Your task to perform on an android device: add a label to a message in the gmail app Image 0: 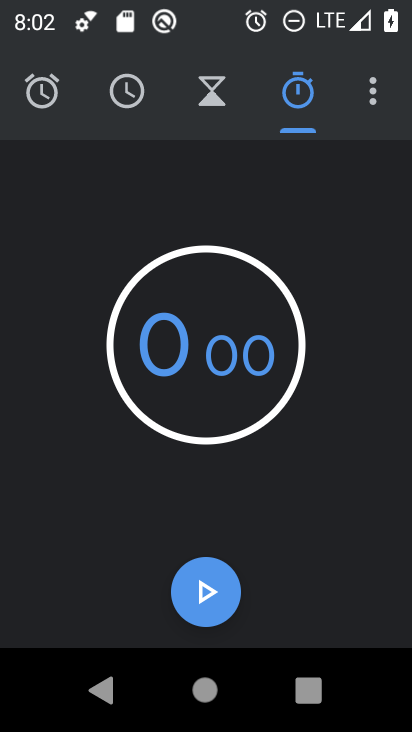
Step 0: press home button
Your task to perform on an android device: add a label to a message in the gmail app Image 1: 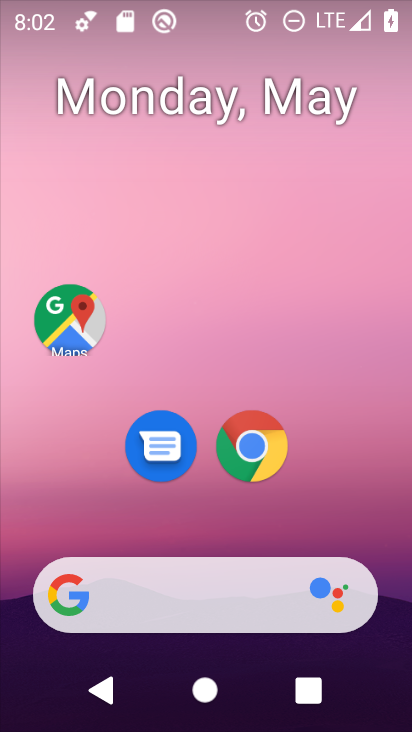
Step 1: drag from (349, 496) to (206, 87)
Your task to perform on an android device: add a label to a message in the gmail app Image 2: 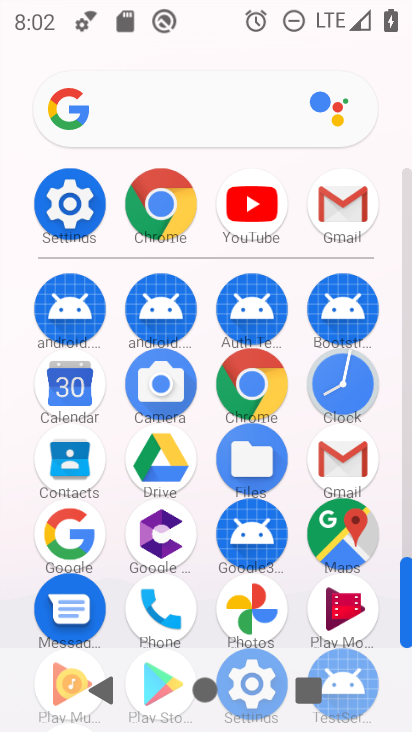
Step 2: click (350, 192)
Your task to perform on an android device: add a label to a message in the gmail app Image 3: 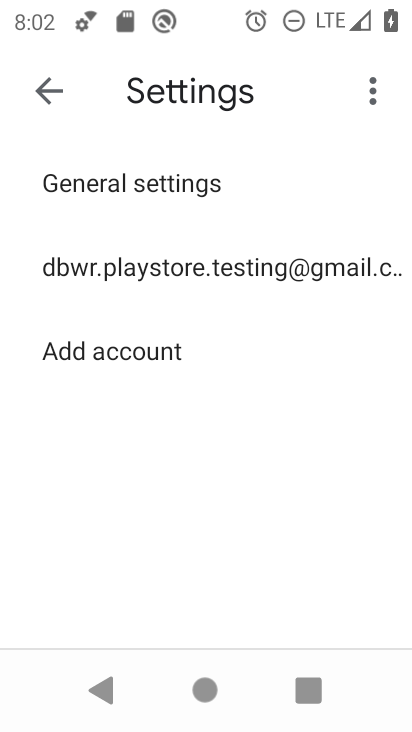
Step 3: click (47, 87)
Your task to perform on an android device: add a label to a message in the gmail app Image 4: 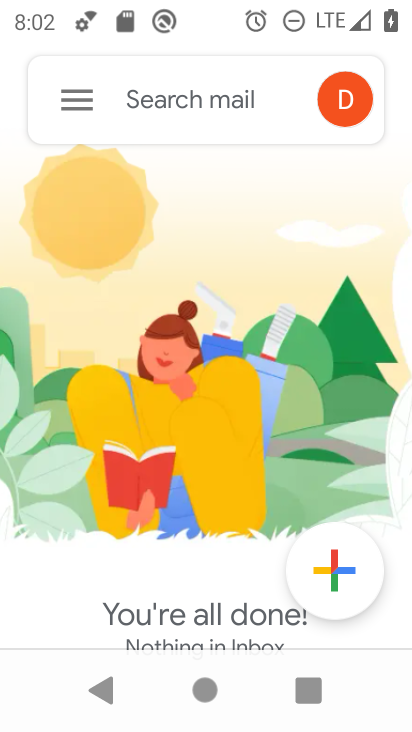
Step 4: click (78, 96)
Your task to perform on an android device: add a label to a message in the gmail app Image 5: 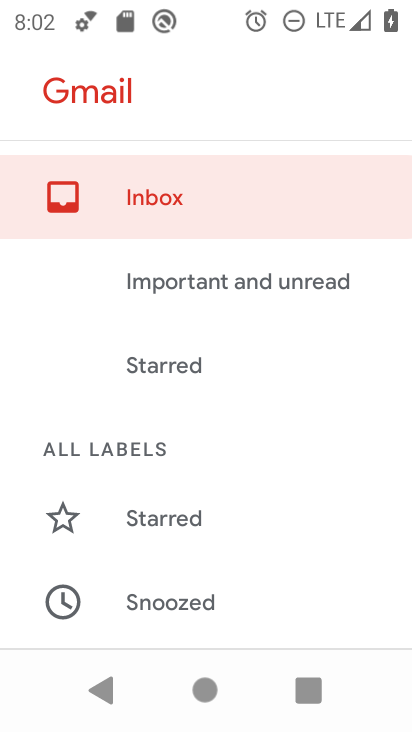
Step 5: drag from (211, 464) to (181, 235)
Your task to perform on an android device: add a label to a message in the gmail app Image 6: 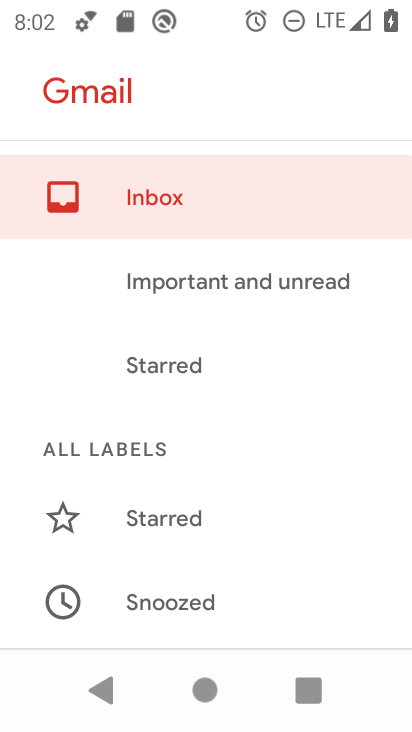
Step 6: drag from (248, 555) to (217, 212)
Your task to perform on an android device: add a label to a message in the gmail app Image 7: 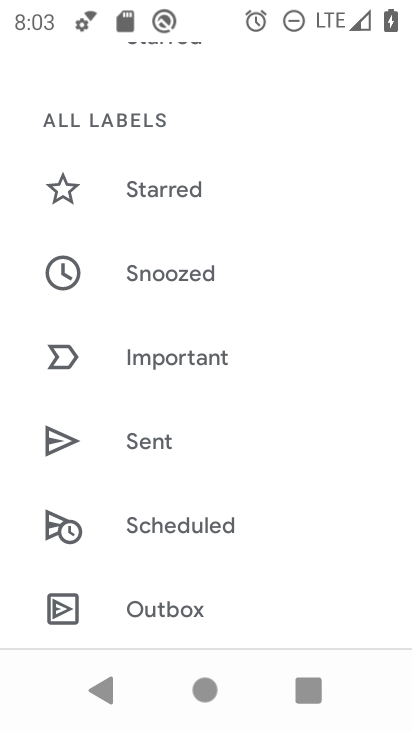
Step 7: drag from (284, 389) to (284, 73)
Your task to perform on an android device: add a label to a message in the gmail app Image 8: 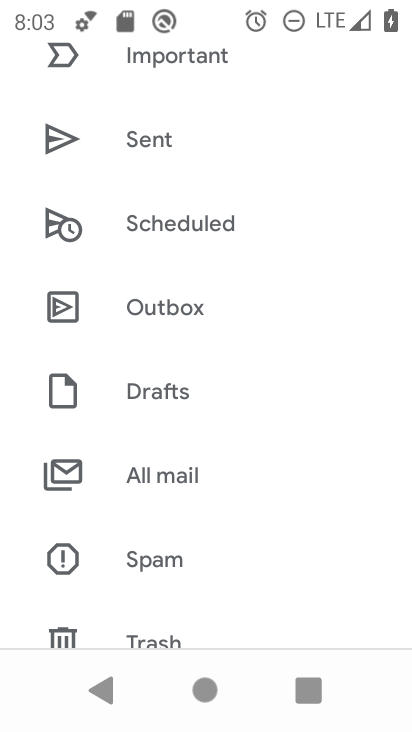
Step 8: click (151, 479)
Your task to perform on an android device: add a label to a message in the gmail app Image 9: 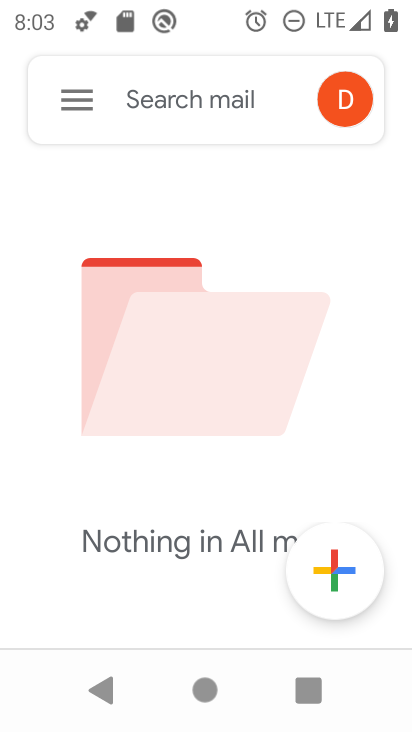
Step 9: task complete